Your task to perform on an android device: empty trash in google photos Image 0: 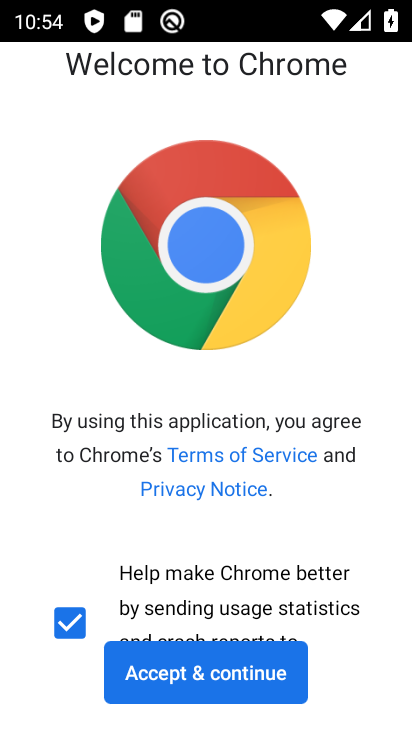
Step 0: press home button
Your task to perform on an android device: empty trash in google photos Image 1: 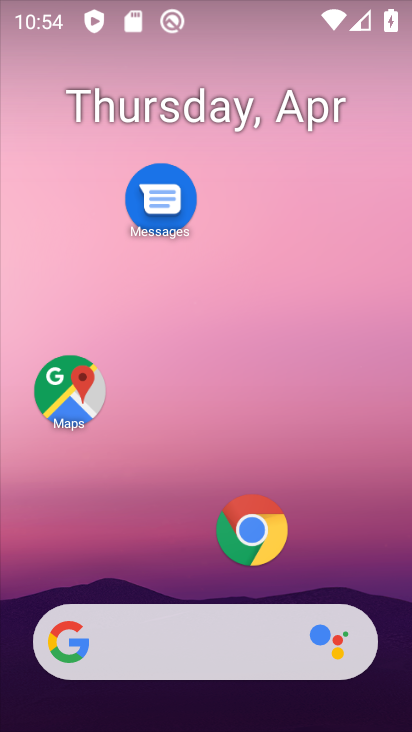
Step 1: drag from (215, 659) to (207, 138)
Your task to perform on an android device: empty trash in google photos Image 2: 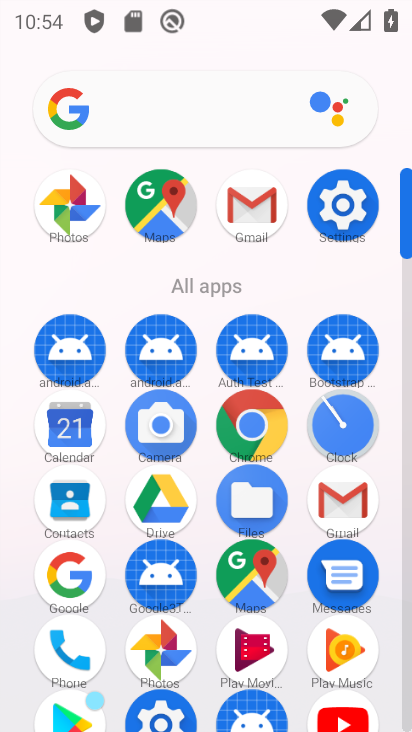
Step 2: click (68, 209)
Your task to perform on an android device: empty trash in google photos Image 3: 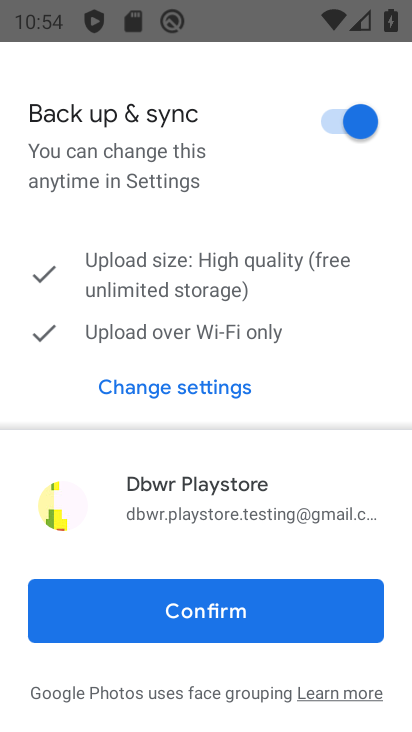
Step 3: click (222, 614)
Your task to perform on an android device: empty trash in google photos Image 4: 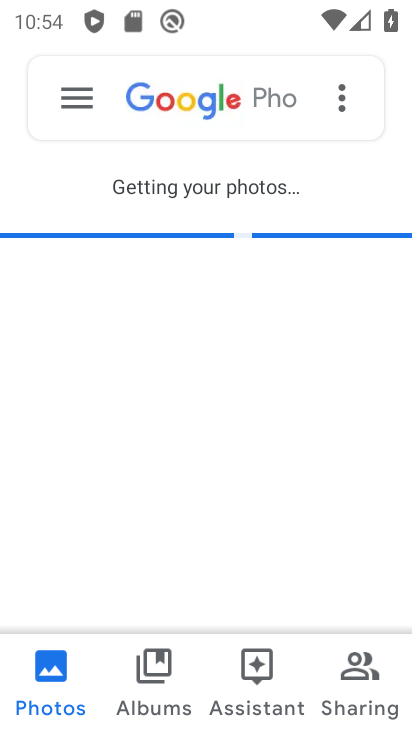
Step 4: click (74, 99)
Your task to perform on an android device: empty trash in google photos Image 5: 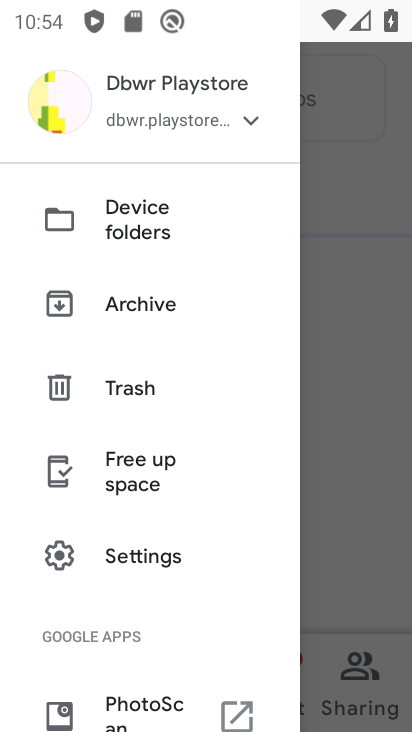
Step 5: click (130, 384)
Your task to perform on an android device: empty trash in google photos Image 6: 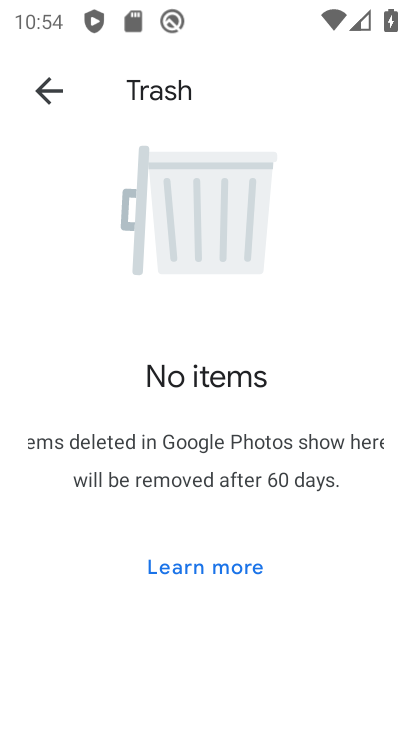
Step 6: task complete